Your task to perform on an android device: all mails in gmail Image 0: 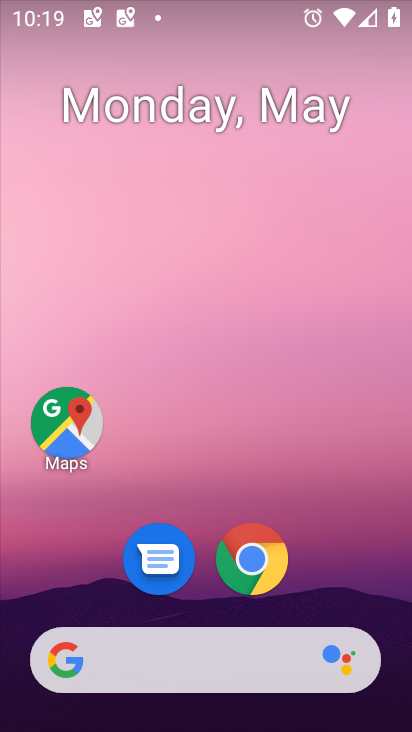
Step 0: drag from (381, 567) to (233, 99)
Your task to perform on an android device: all mails in gmail Image 1: 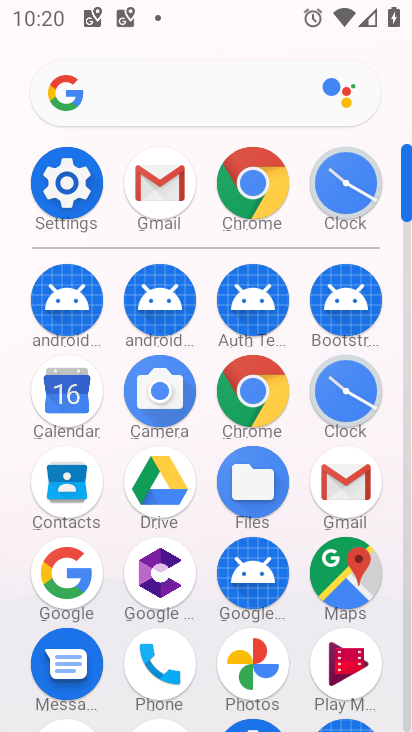
Step 1: click (350, 477)
Your task to perform on an android device: all mails in gmail Image 2: 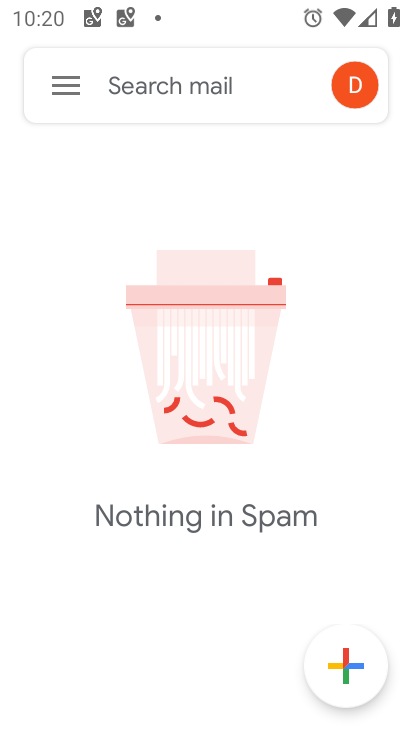
Step 2: click (63, 78)
Your task to perform on an android device: all mails in gmail Image 3: 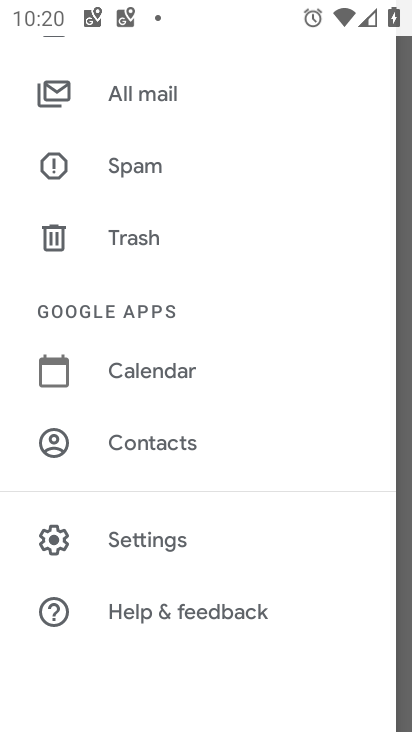
Step 3: click (180, 111)
Your task to perform on an android device: all mails in gmail Image 4: 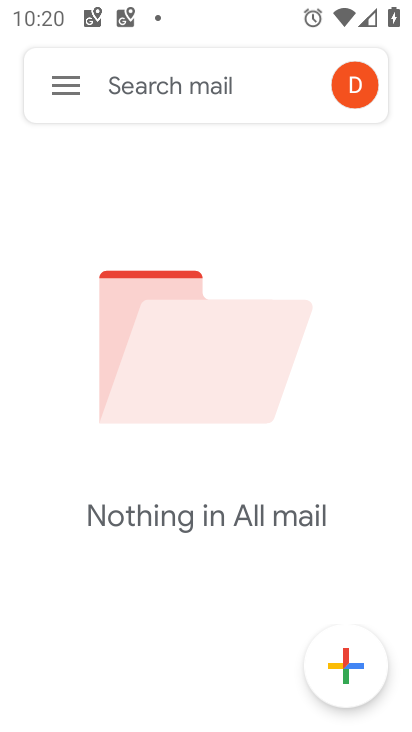
Step 4: task complete